Your task to perform on an android device: Look up the best rated gaming chair on Best Buy Image 0: 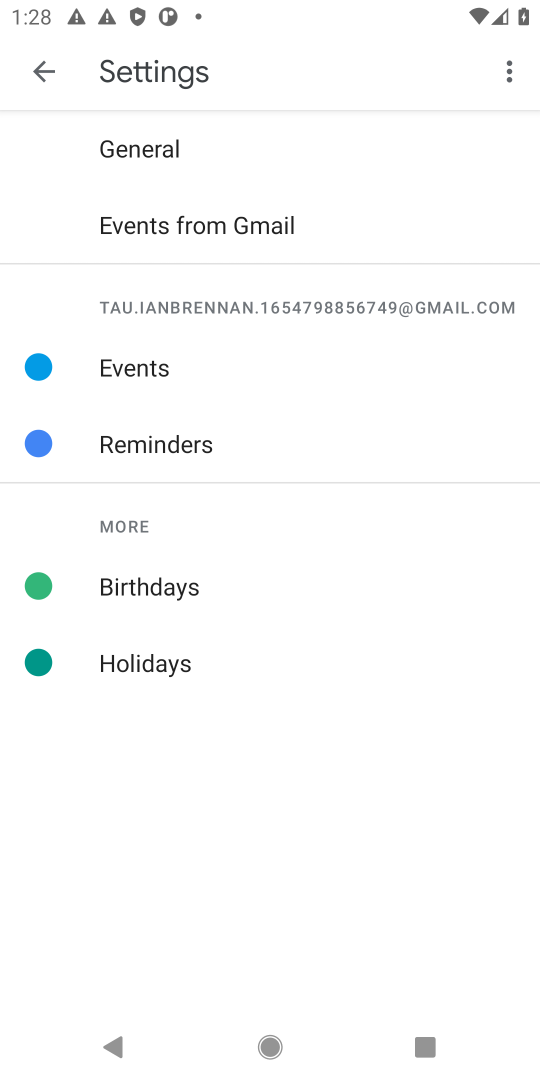
Step 0: press home button
Your task to perform on an android device: Look up the best rated gaming chair on Best Buy Image 1: 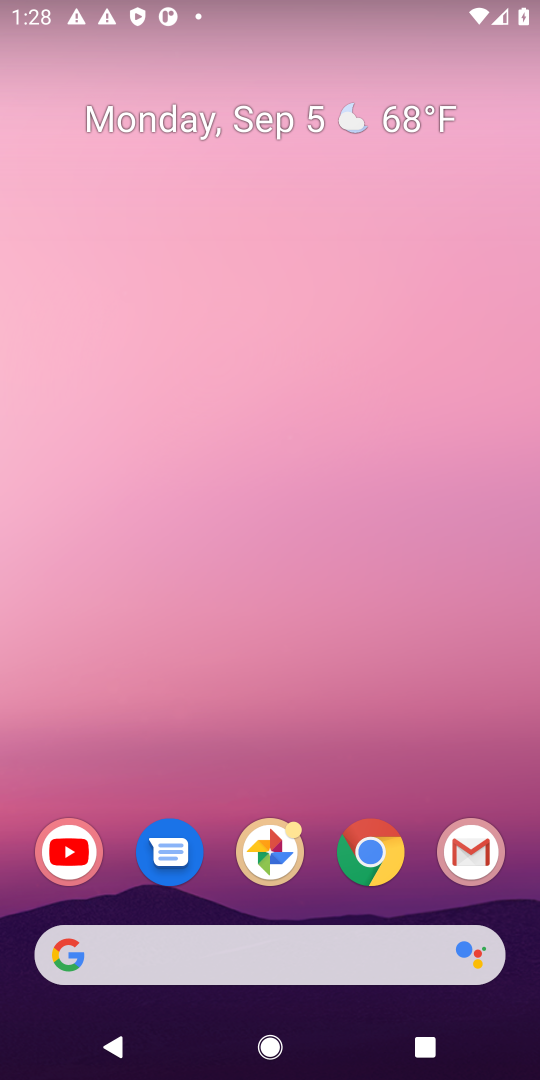
Step 1: click (364, 861)
Your task to perform on an android device: Look up the best rated gaming chair on Best Buy Image 2: 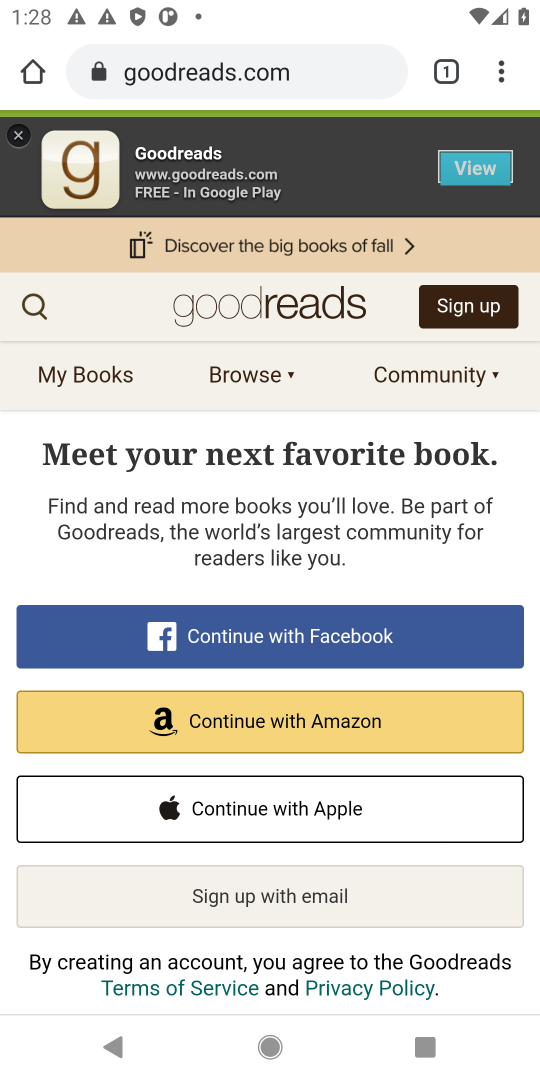
Step 2: click (306, 66)
Your task to perform on an android device: Look up the best rated gaming chair on Best Buy Image 3: 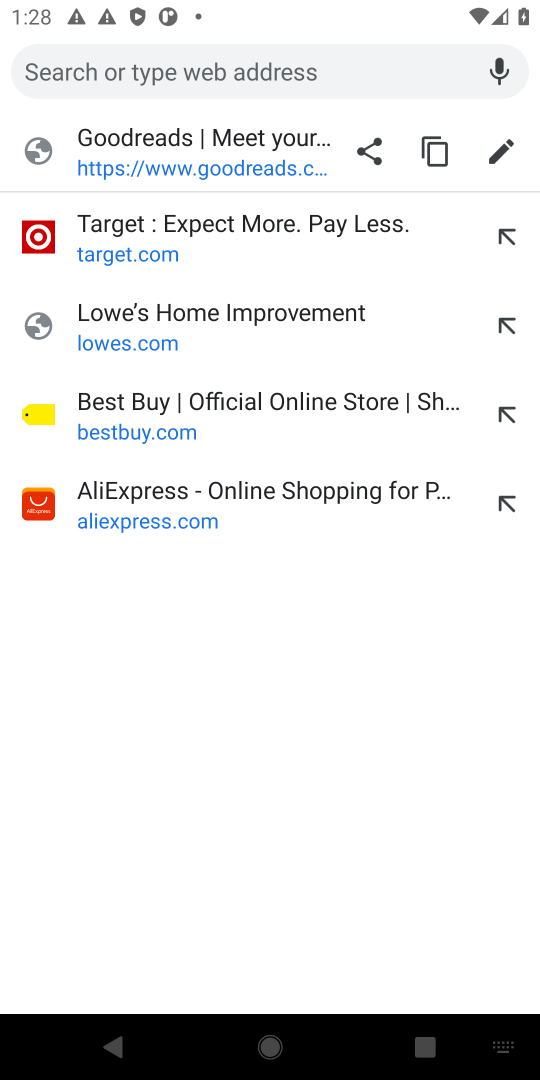
Step 3: type "Bestbuy"
Your task to perform on an android device: Look up the best rated gaming chair on Best Buy Image 4: 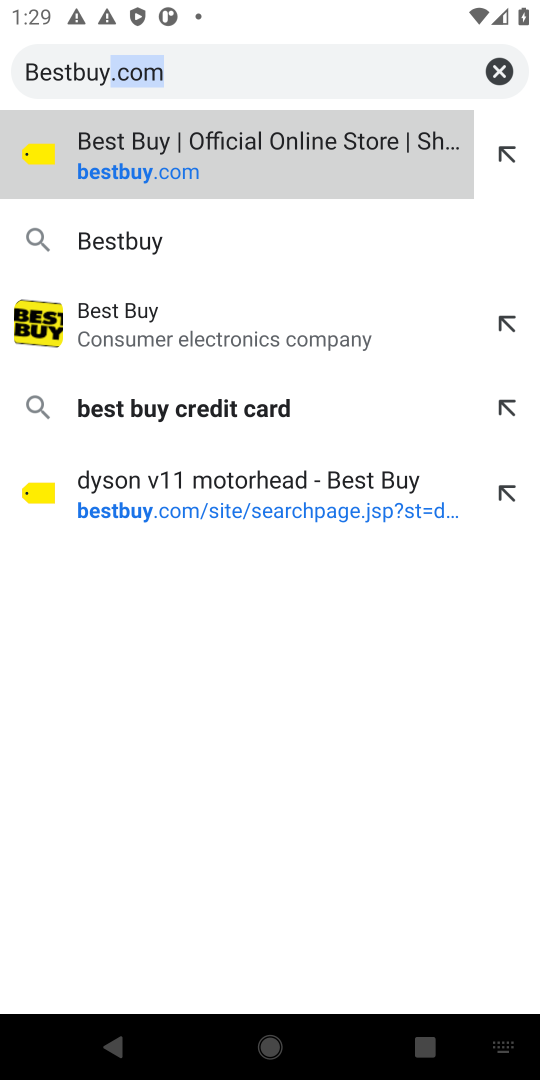
Step 4: click (113, 328)
Your task to perform on an android device: Look up the best rated gaming chair on Best Buy Image 5: 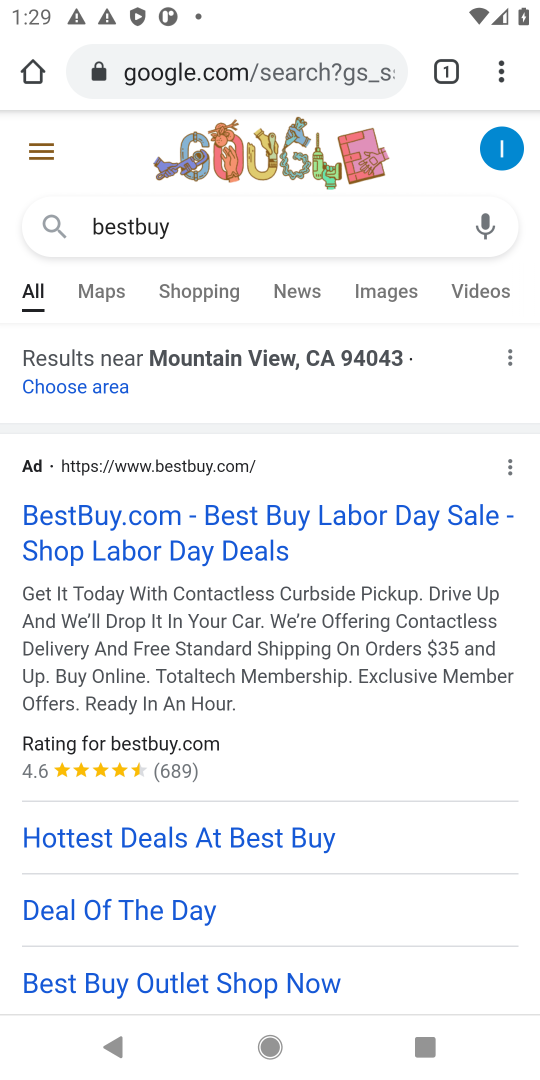
Step 5: click (69, 513)
Your task to perform on an android device: Look up the best rated gaming chair on Best Buy Image 6: 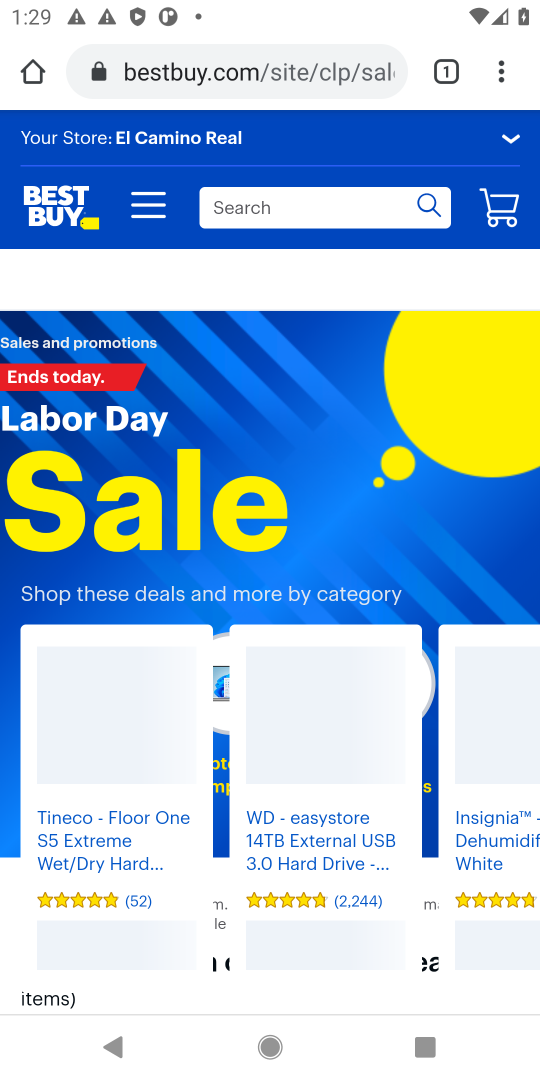
Step 6: click (257, 201)
Your task to perform on an android device: Look up the best rated gaming chair on Best Buy Image 7: 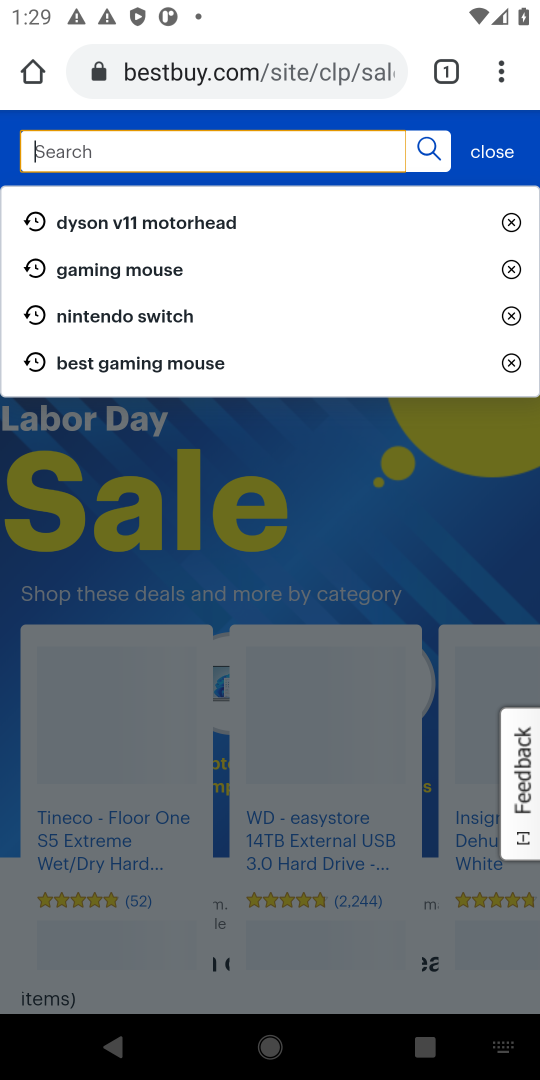
Step 7: type "gaming chair"
Your task to perform on an android device: Look up the best rated gaming chair on Best Buy Image 8: 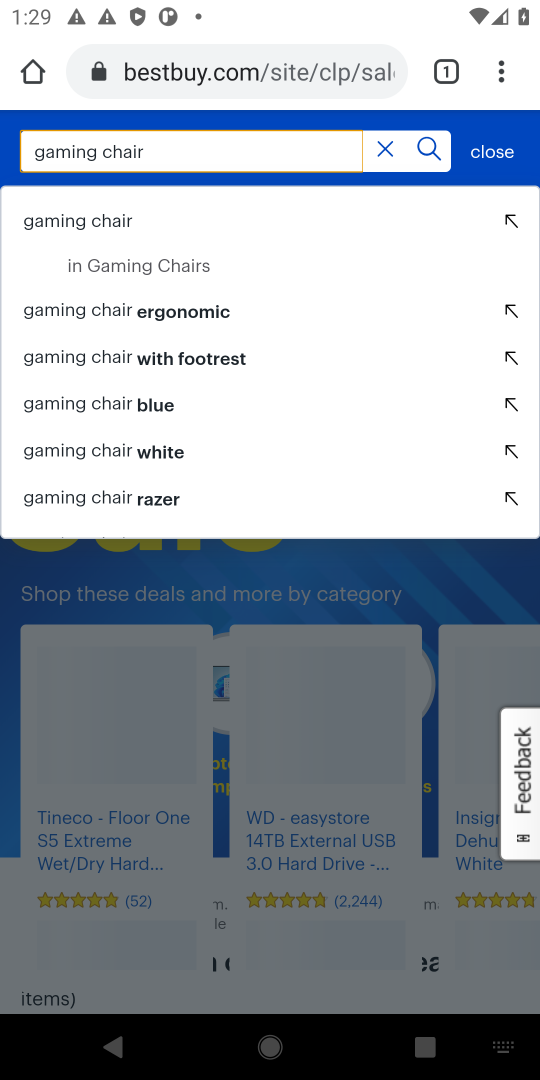
Step 8: click (56, 211)
Your task to perform on an android device: Look up the best rated gaming chair on Best Buy Image 9: 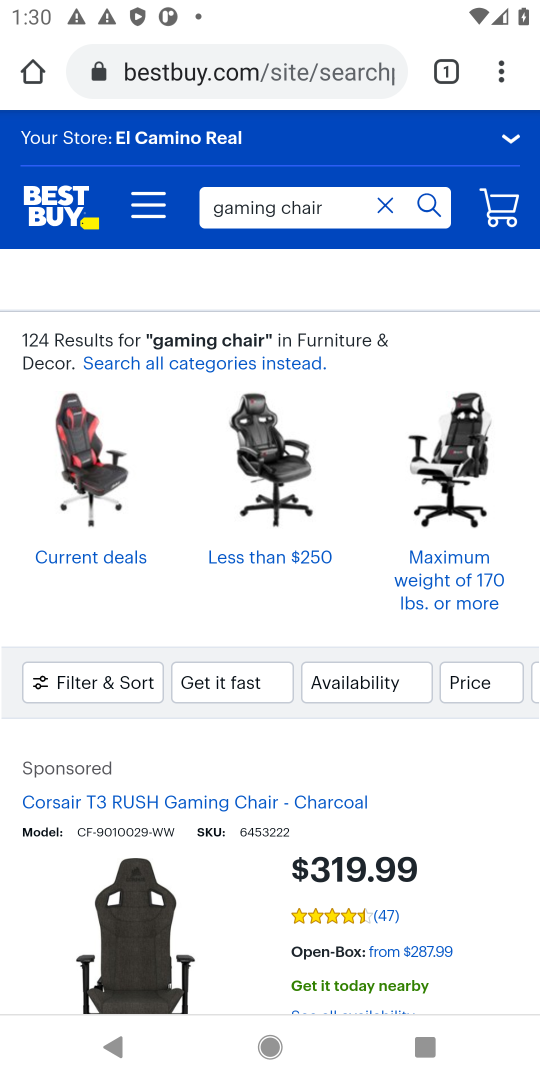
Step 9: click (55, 680)
Your task to perform on an android device: Look up the best rated gaming chair on Best Buy Image 10: 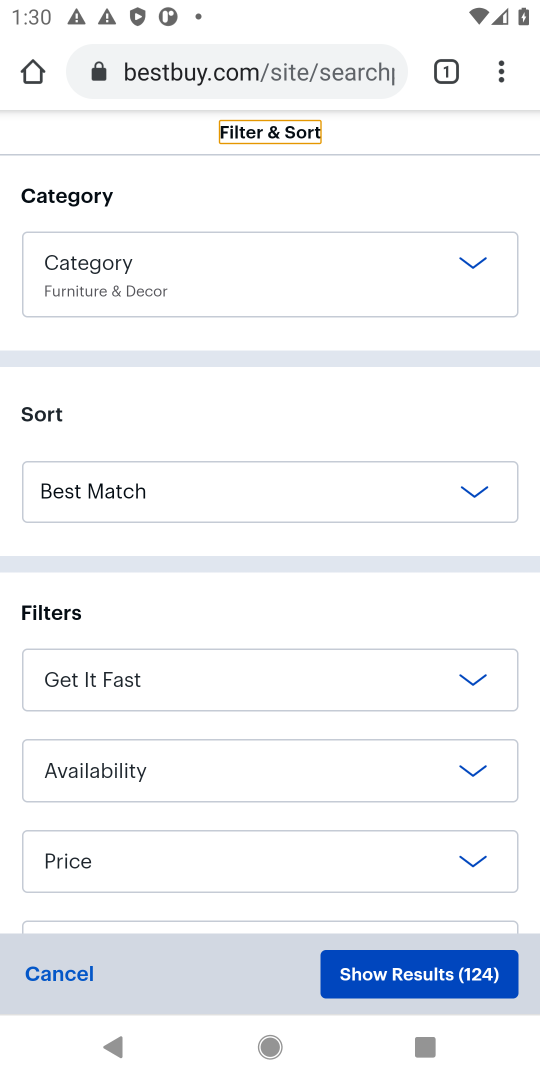
Step 10: click (468, 483)
Your task to perform on an android device: Look up the best rated gaming chair on Best Buy Image 11: 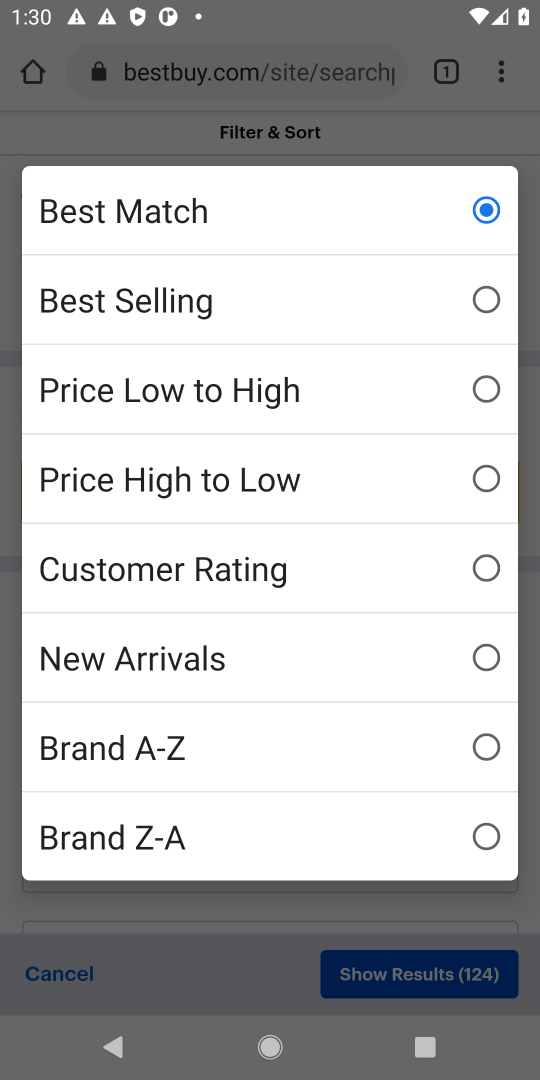
Step 11: click (484, 567)
Your task to perform on an android device: Look up the best rated gaming chair on Best Buy Image 12: 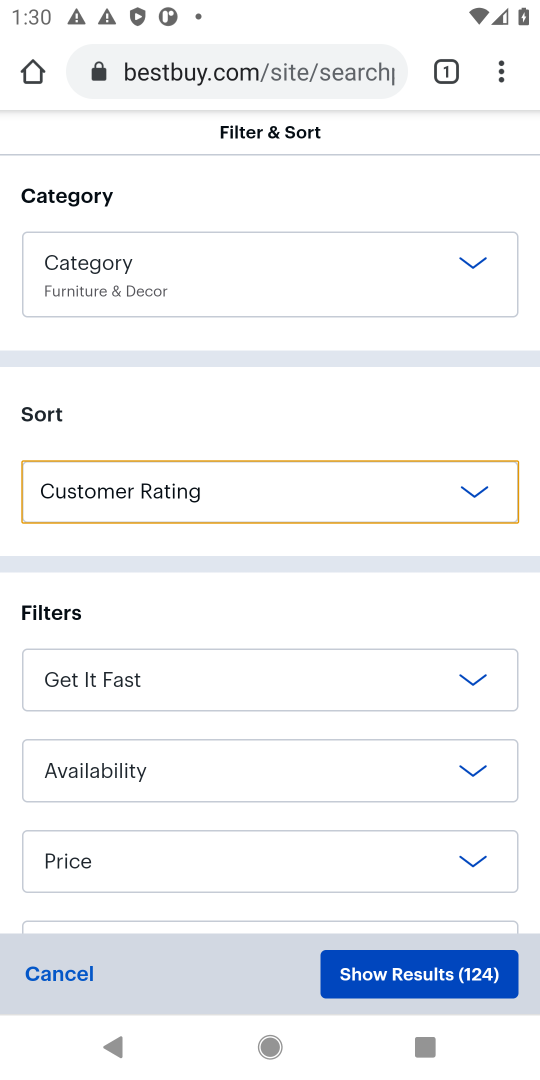
Step 12: drag from (316, 580) to (277, 228)
Your task to perform on an android device: Look up the best rated gaming chair on Best Buy Image 13: 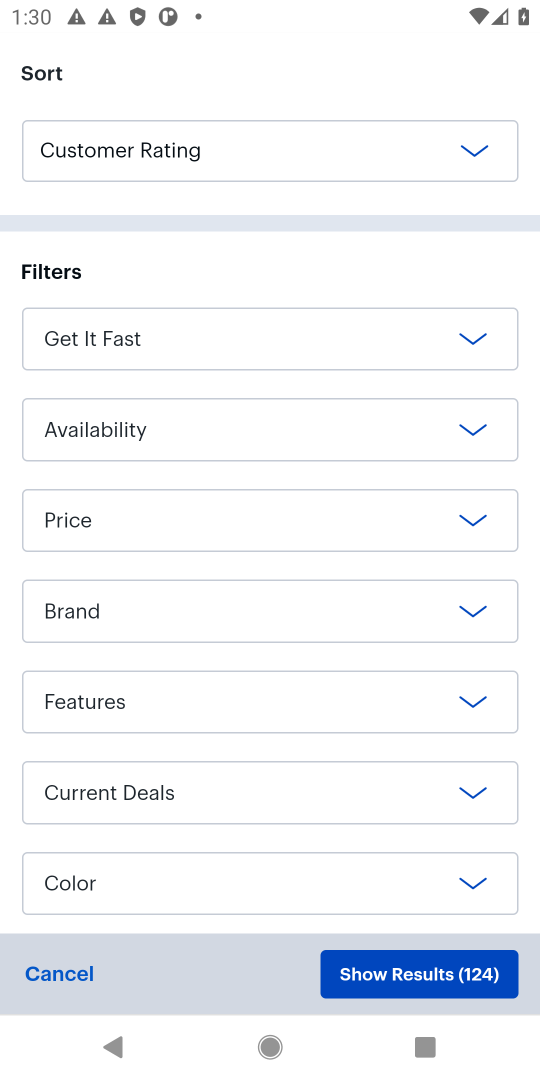
Step 13: drag from (291, 831) to (276, 388)
Your task to perform on an android device: Look up the best rated gaming chair on Best Buy Image 14: 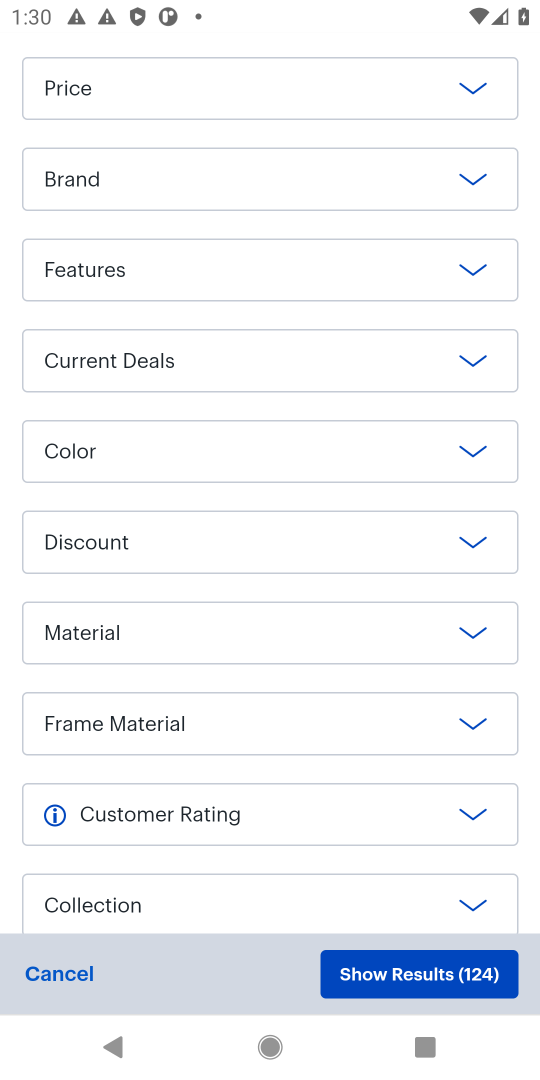
Step 14: click (425, 968)
Your task to perform on an android device: Look up the best rated gaming chair on Best Buy Image 15: 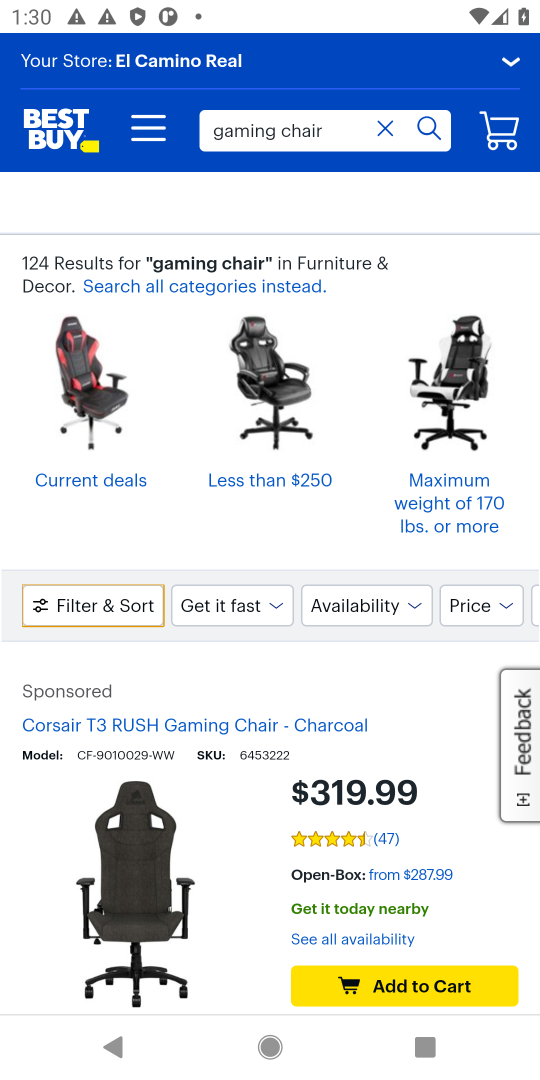
Step 15: task complete